Your task to perform on an android device: When is my next appointment? Image 0: 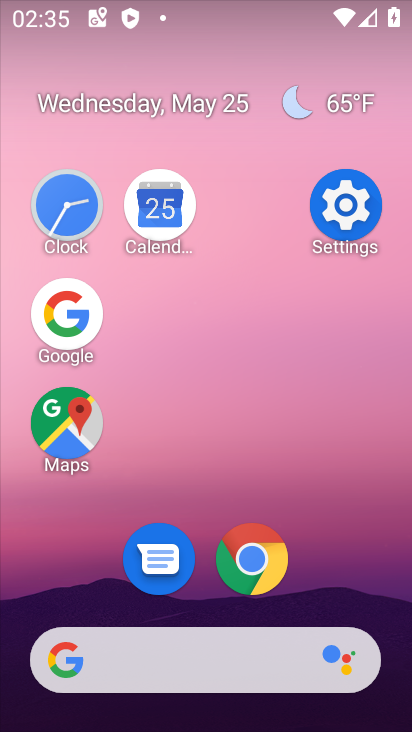
Step 0: click (161, 239)
Your task to perform on an android device: When is my next appointment? Image 1: 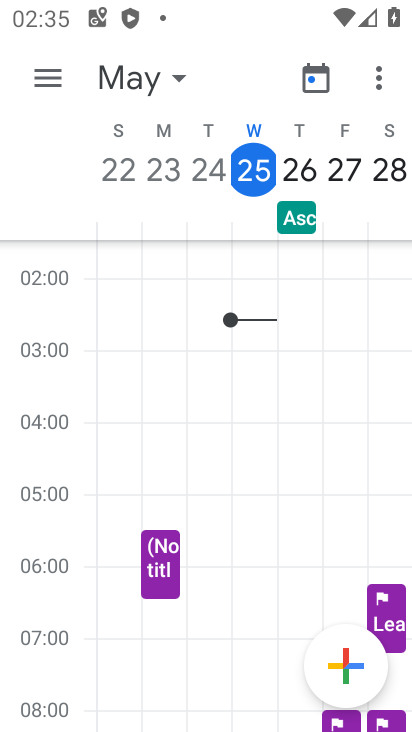
Step 1: click (314, 178)
Your task to perform on an android device: When is my next appointment? Image 2: 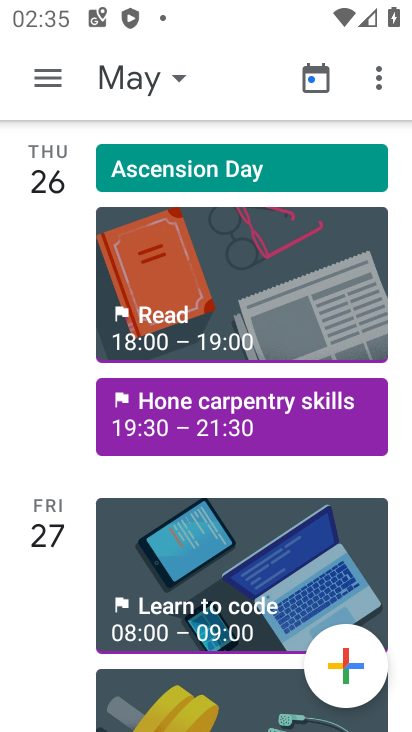
Step 2: task complete